Your task to perform on an android device: Clear the shopping cart on walmart. Image 0: 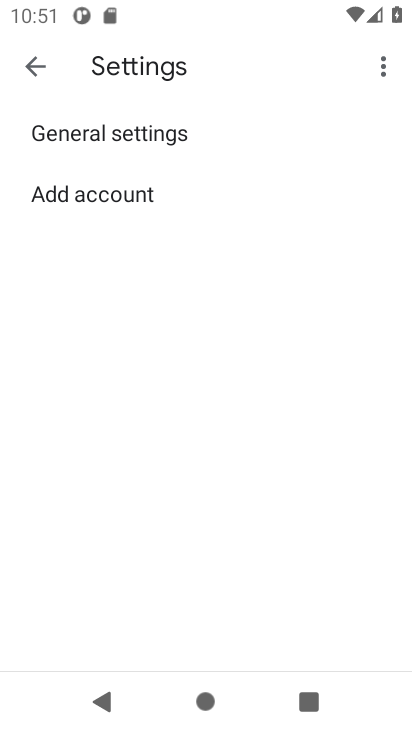
Step 0: press home button
Your task to perform on an android device: Clear the shopping cart on walmart. Image 1: 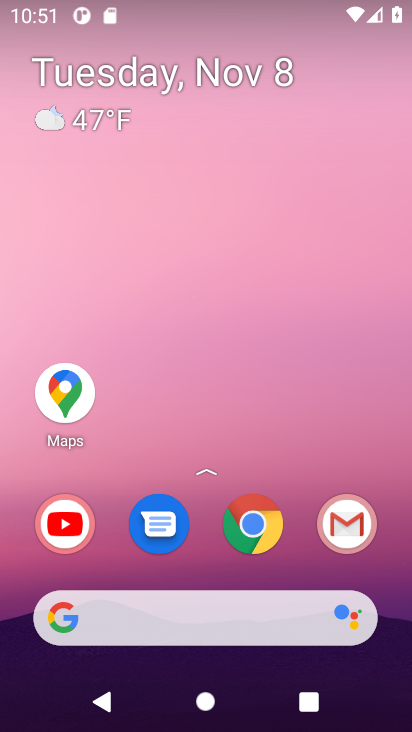
Step 1: click (260, 534)
Your task to perform on an android device: Clear the shopping cart on walmart. Image 2: 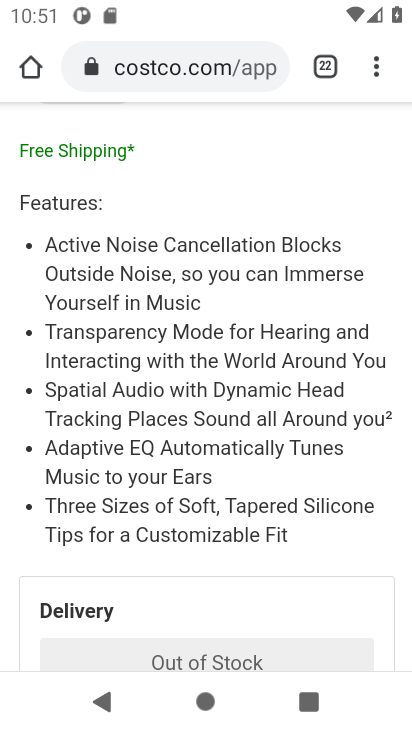
Step 2: click (194, 71)
Your task to perform on an android device: Clear the shopping cart on walmart. Image 3: 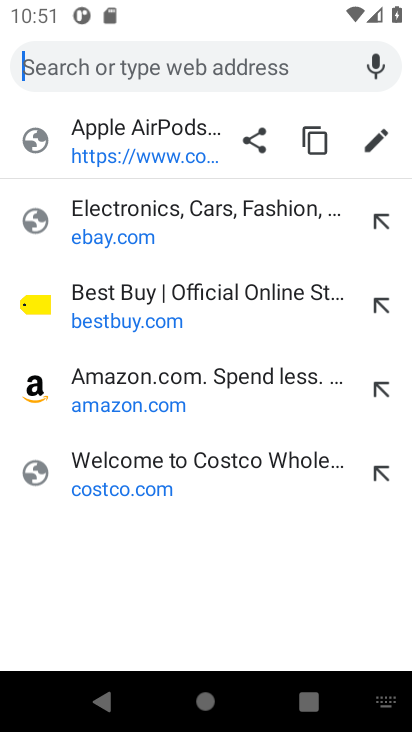
Step 3: type "walmart.com"
Your task to perform on an android device: Clear the shopping cart on walmart. Image 4: 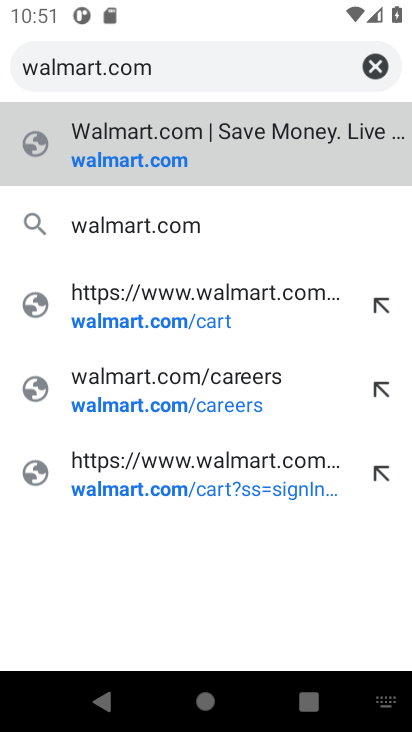
Step 4: click (127, 183)
Your task to perform on an android device: Clear the shopping cart on walmart. Image 5: 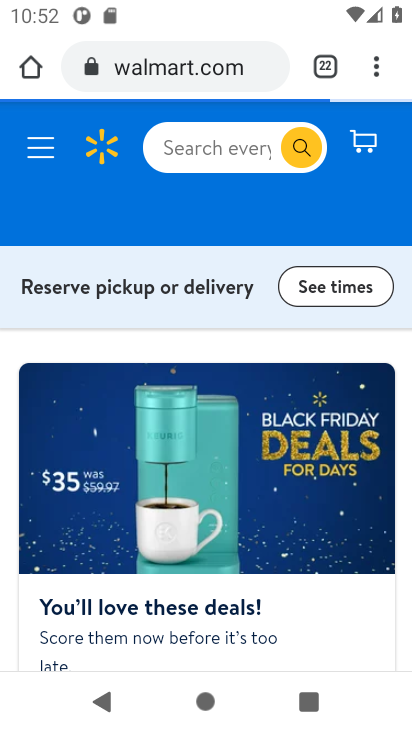
Step 5: click (375, 140)
Your task to perform on an android device: Clear the shopping cart on walmart. Image 6: 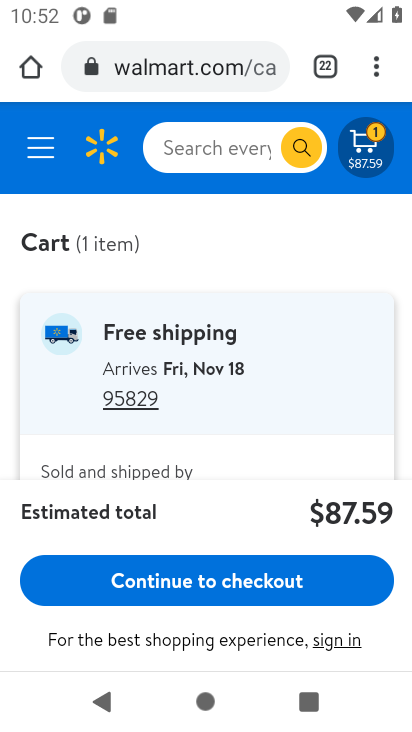
Step 6: drag from (246, 453) to (244, 208)
Your task to perform on an android device: Clear the shopping cart on walmart. Image 7: 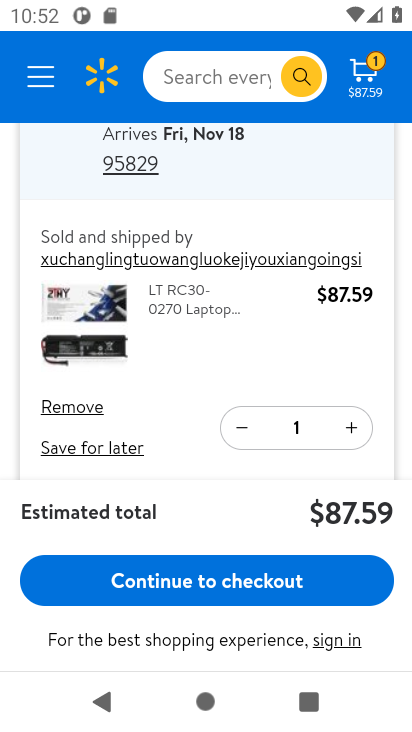
Step 7: drag from (188, 381) to (199, 205)
Your task to perform on an android device: Clear the shopping cart on walmart. Image 8: 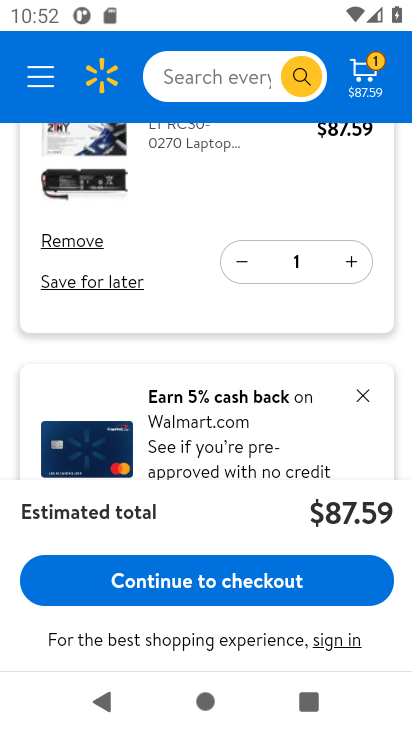
Step 8: click (76, 240)
Your task to perform on an android device: Clear the shopping cart on walmart. Image 9: 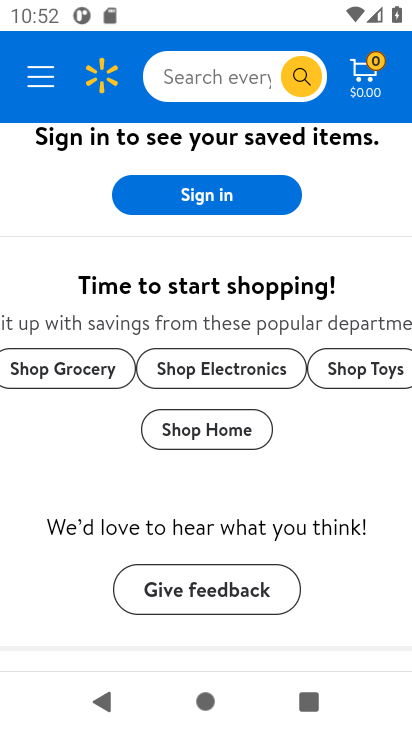
Step 9: task complete